Your task to perform on an android device: turn on location history Image 0: 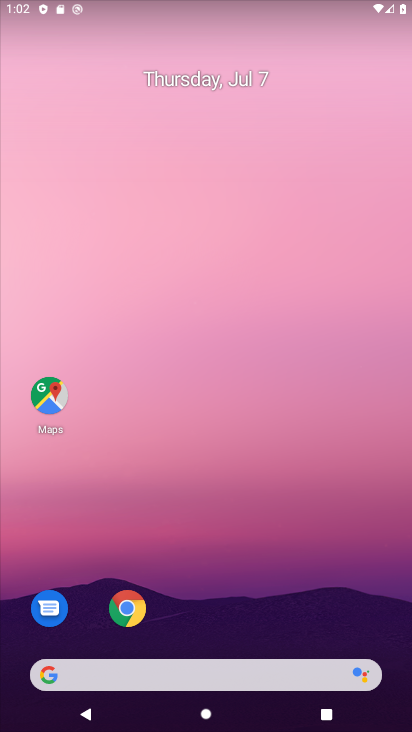
Step 0: drag from (254, 604) to (314, 19)
Your task to perform on an android device: turn on location history Image 1: 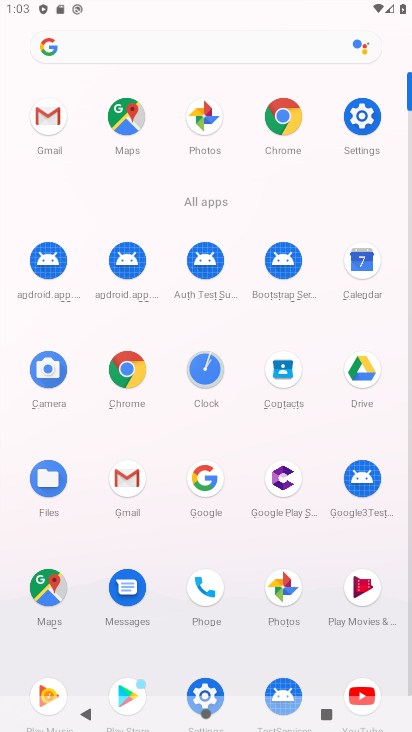
Step 1: click (372, 121)
Your task to perform on an android device: turn on location history Image 2: 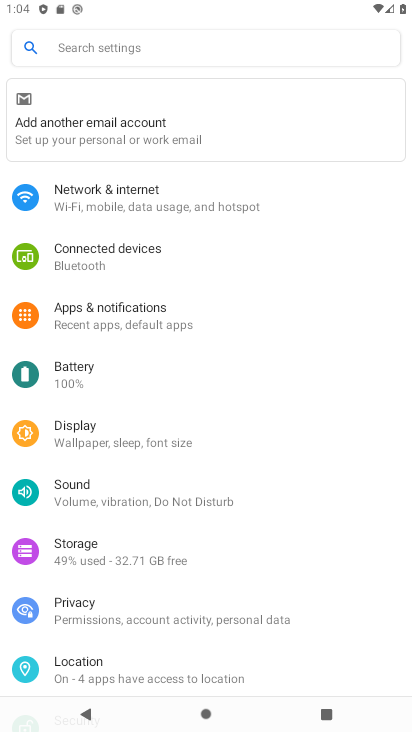
Step 2: click (81, 669)
Your task to perform on an android device: turn on location history Image 3: 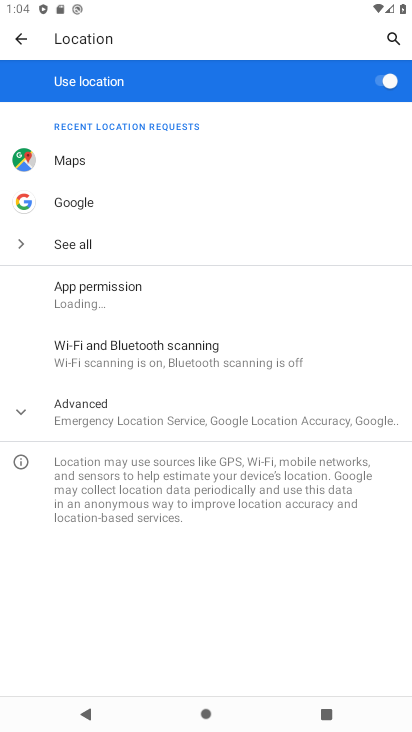
Step 3: click (141, 404)
Your task to perform on an android device: turn on location history Image 4: 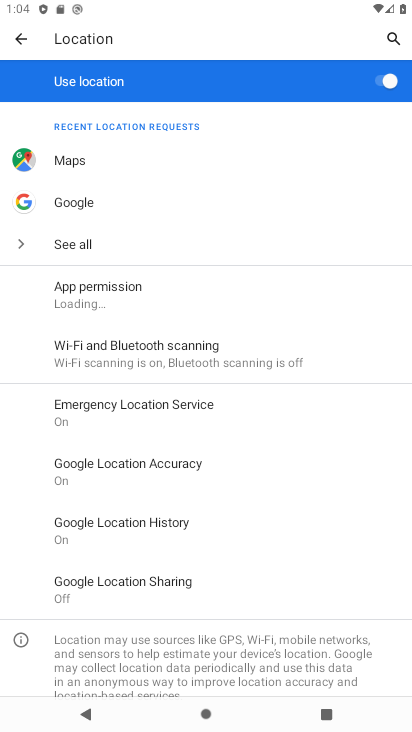
Step 4: click (123, 521)
Your task to perform on an android device: turn on location history Image 5: 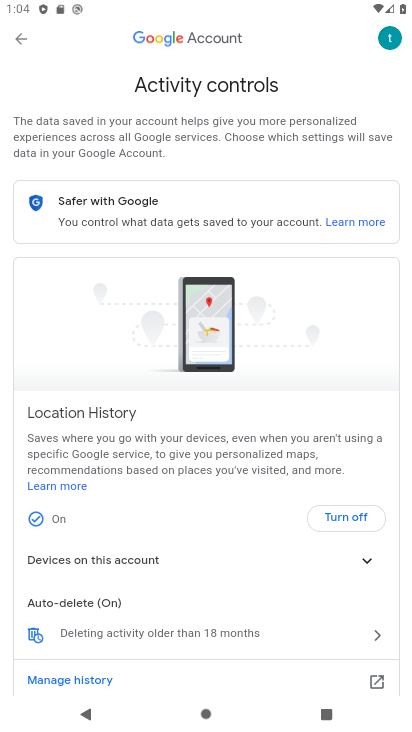
Step 5: task complete